Your task to perform on an android device: Clear the shopping cart on target. Image 0: 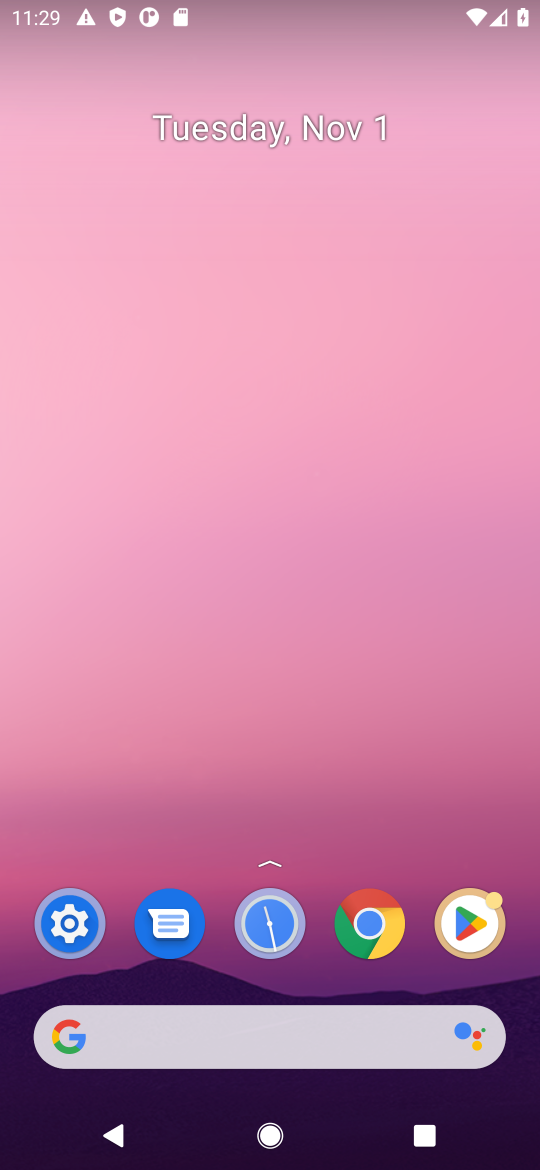
Step 0: click (366, 928)
Your task to perform on an android device: Clear the shopping cart on target. Image 1: 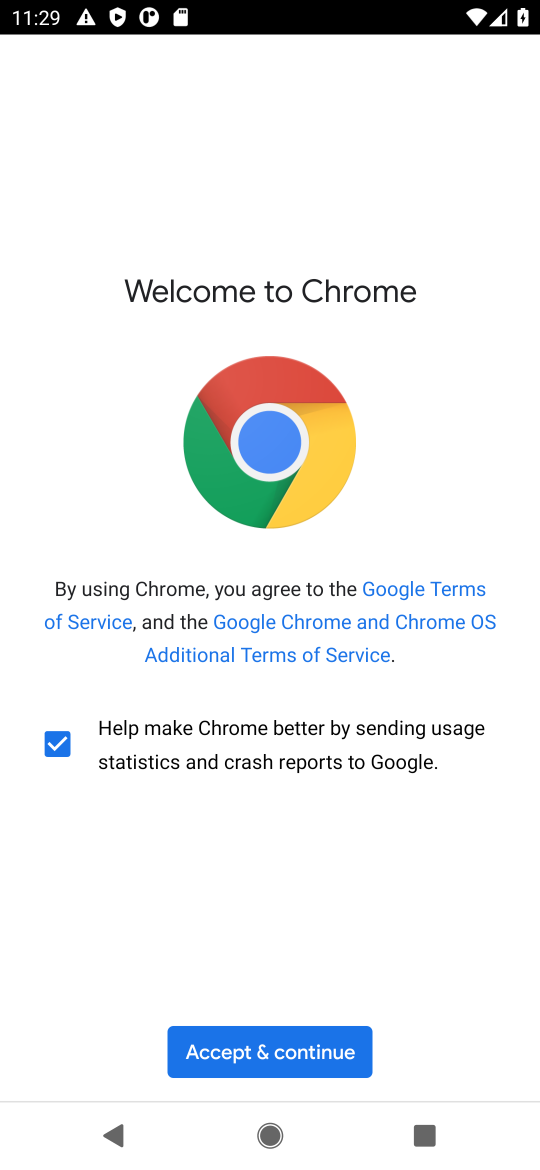
Step 1: click (317, 1065)
Your task to perform on an android device: Clear the shopping cart on target. Image 2: 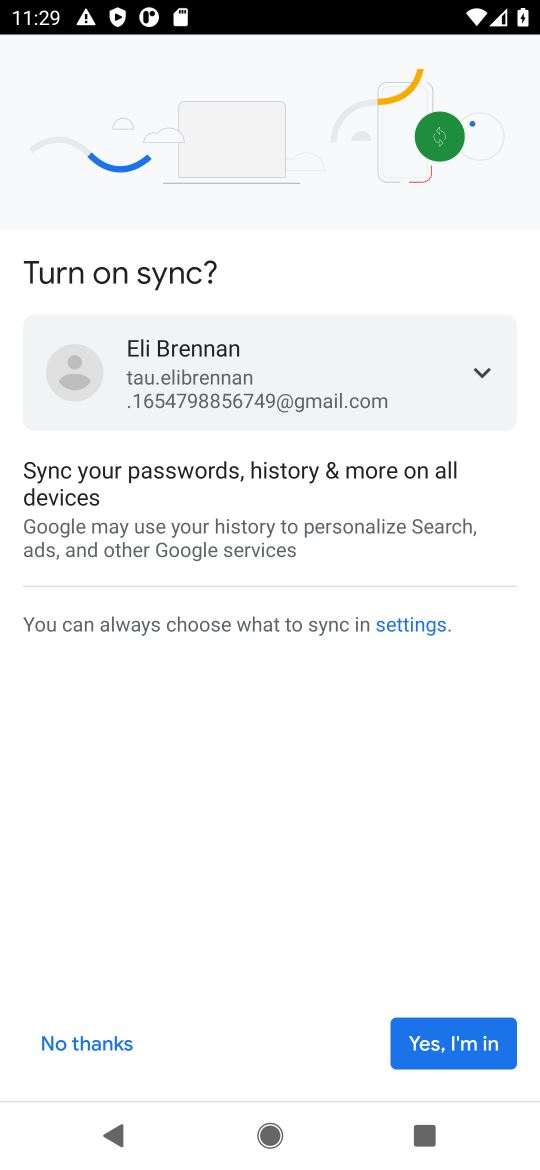
Step 2: click (468, 1043)
Your task to perform on an android device: Clear the shopping cart on target. Image 3: 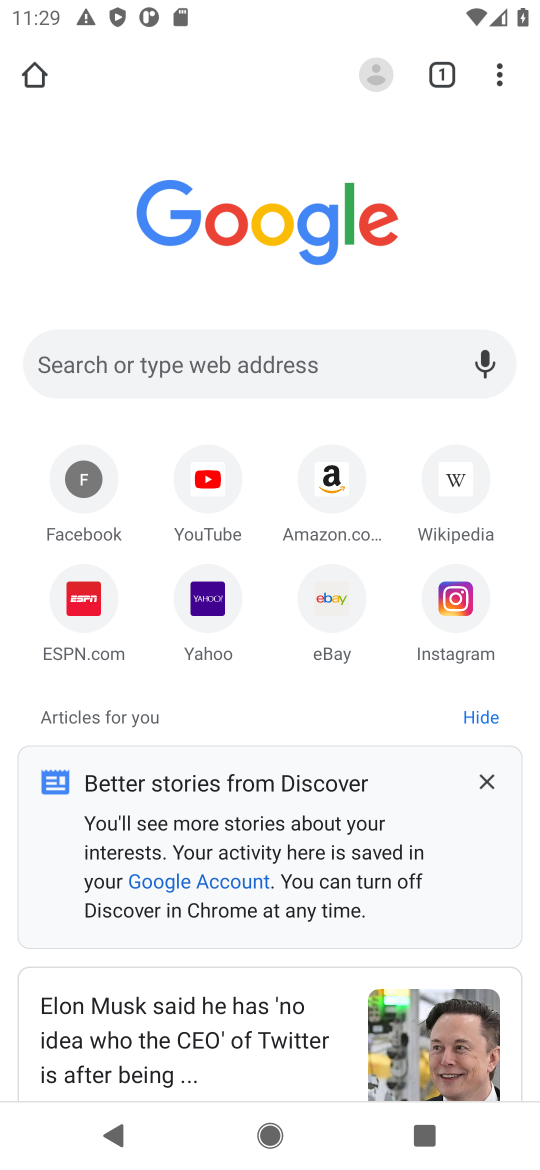
Step 3: click (179, 375)
Your task to perform on an android device: Clear the shopping cart on target. Image 4: 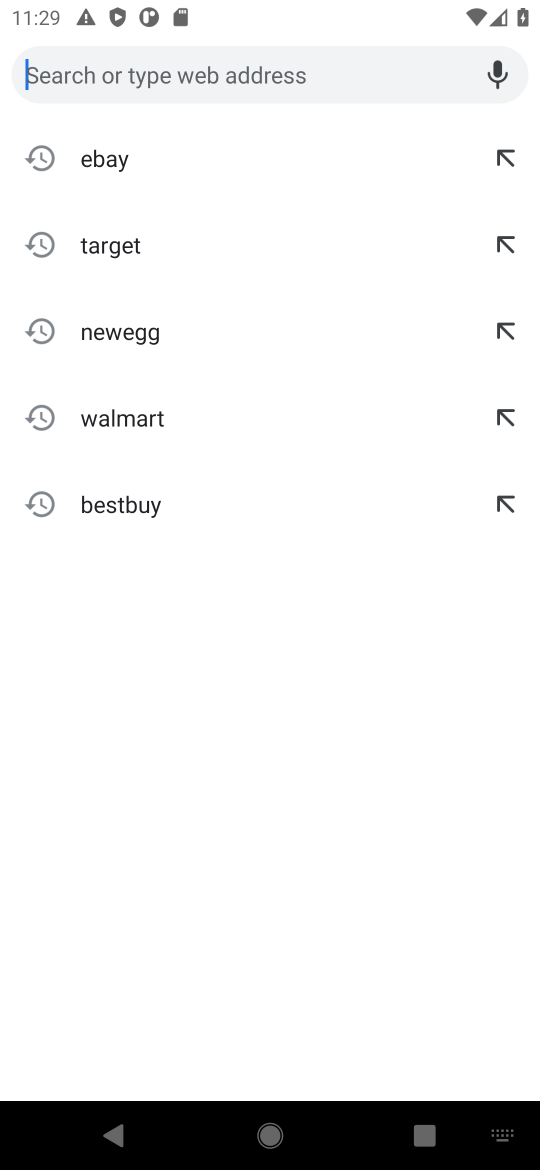
Step 4: type "target"
Your task to perform on an android device: Clear the shopping cart on target. Image 5: 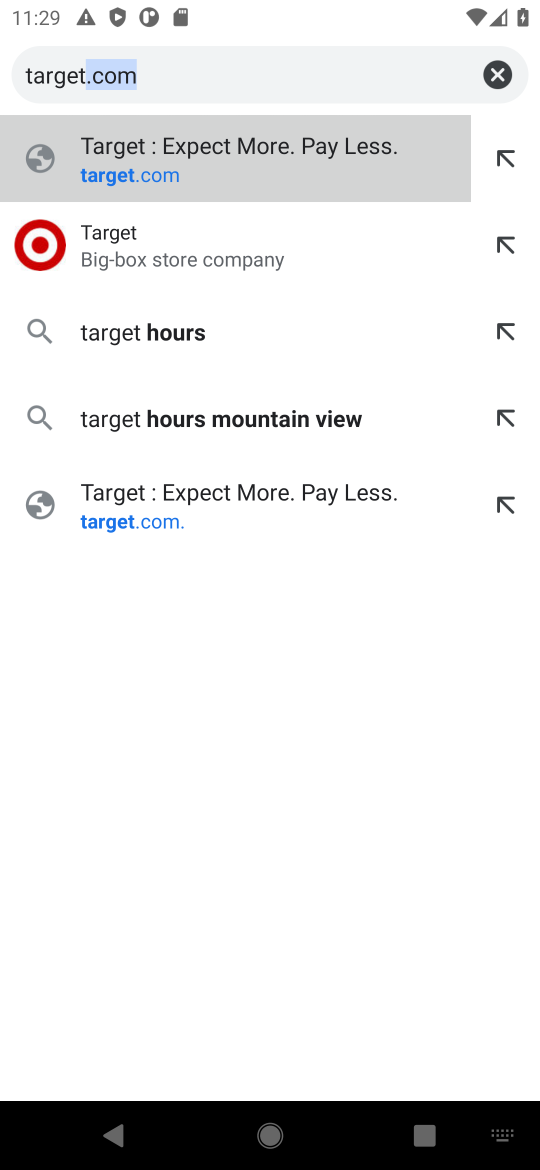
Step 5: type ""
Your task to perform on an android device: Clear the shopping cart on target. Image 6: 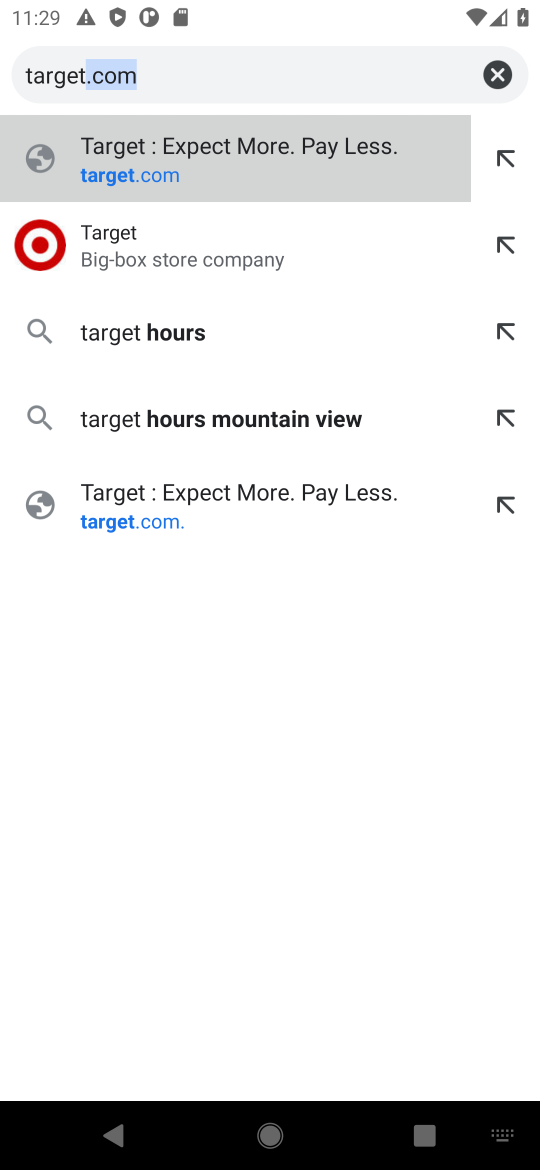
Step 6: click (350, 168)
Your task to perform on an android device: Clear the shopping cart on target. Image 7: 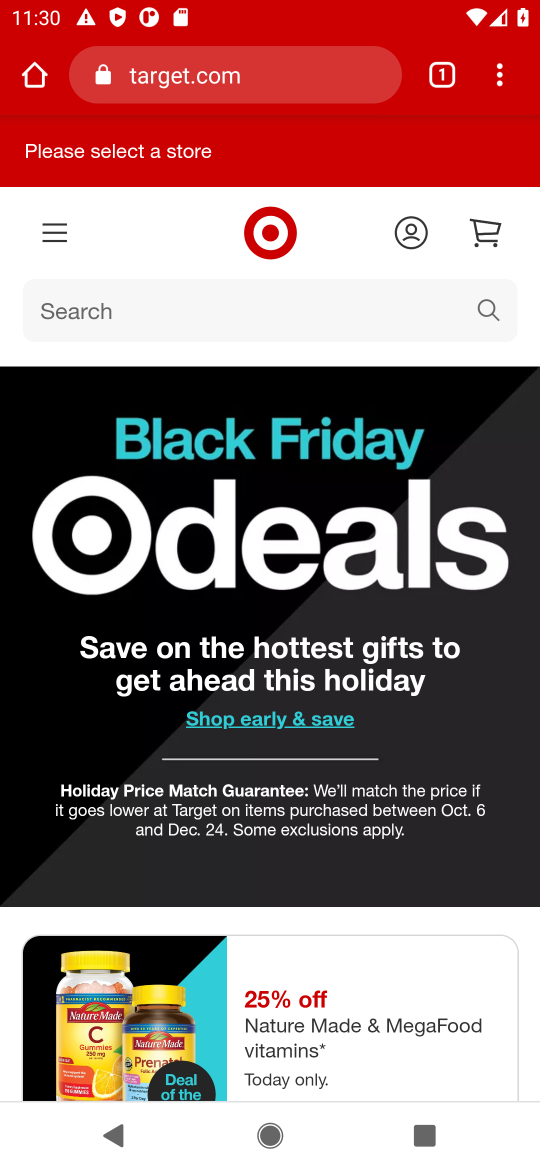
Step 7: click (506, 231)
Your task to perform on an android device: Clear the shopping cart on target. Image 8: 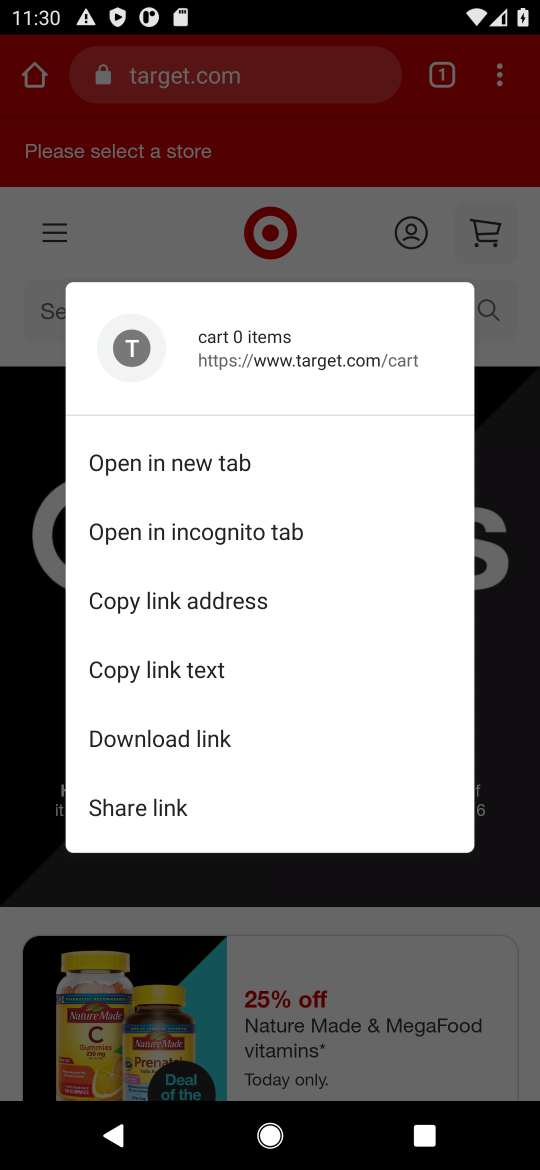
Step 8: click (487, 316)
Your task to perform on an android device: Clear the shopping cart on target. Image 9: 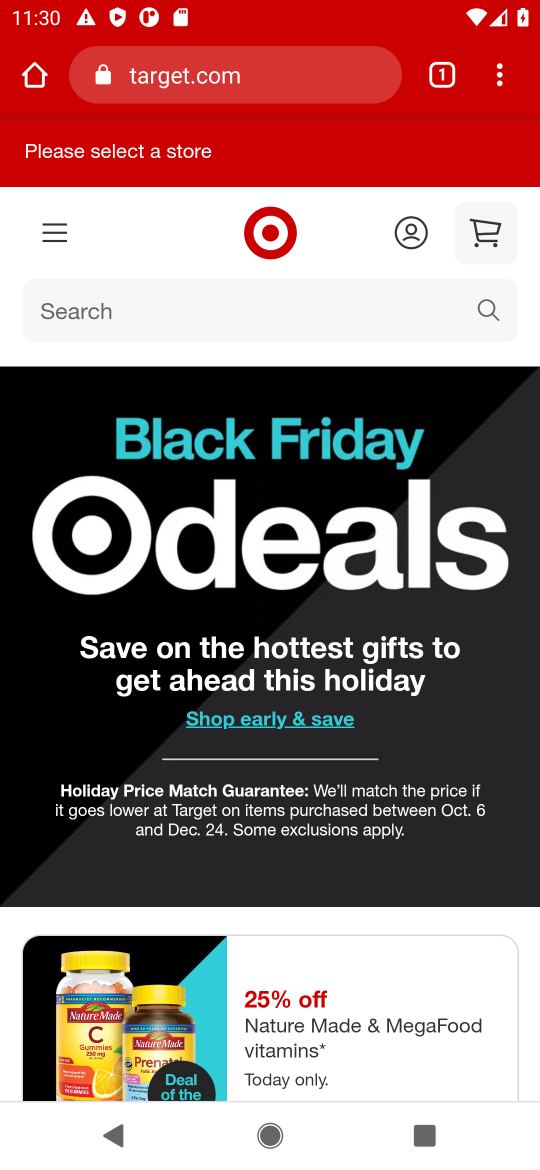
Step 9: click (477, 245)
Your task to perform on an android device: Clear the shopping cart on target. Image 10: 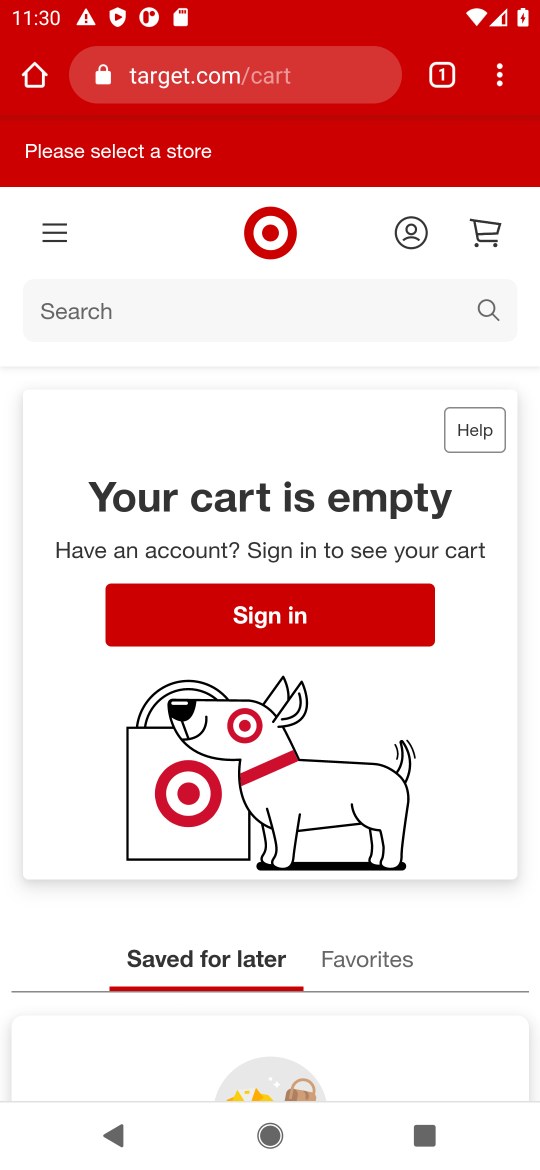
Step 10: press back button
Your task to perform on an android device: Clear the shopping cart on target. Image 11: 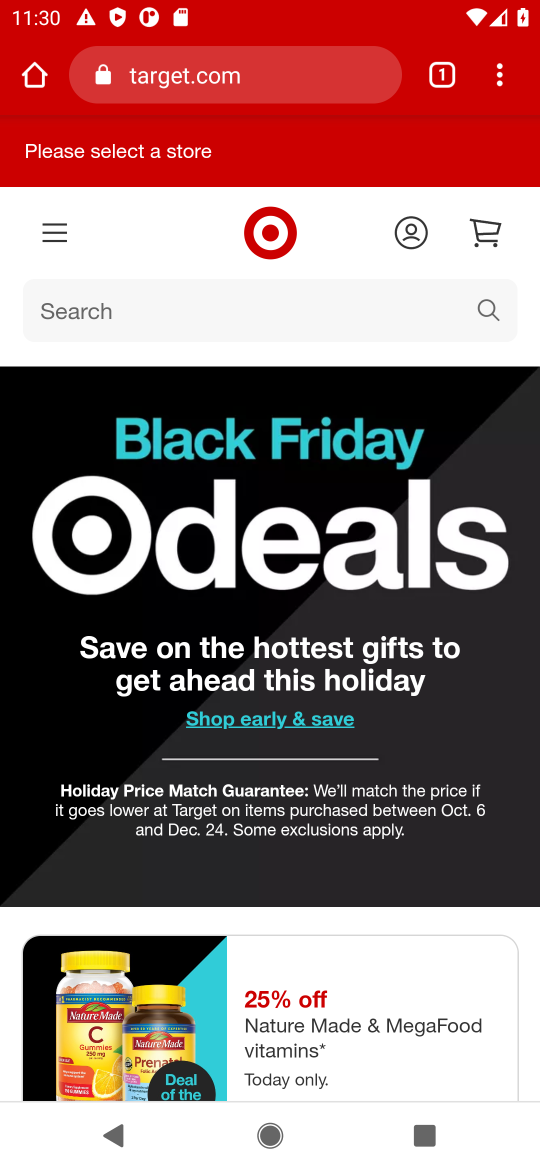
Step 11: drag from (299, 625) to (309, 332)
Your task to perform on an android device: Clear the shopping cart on target. Image 12: 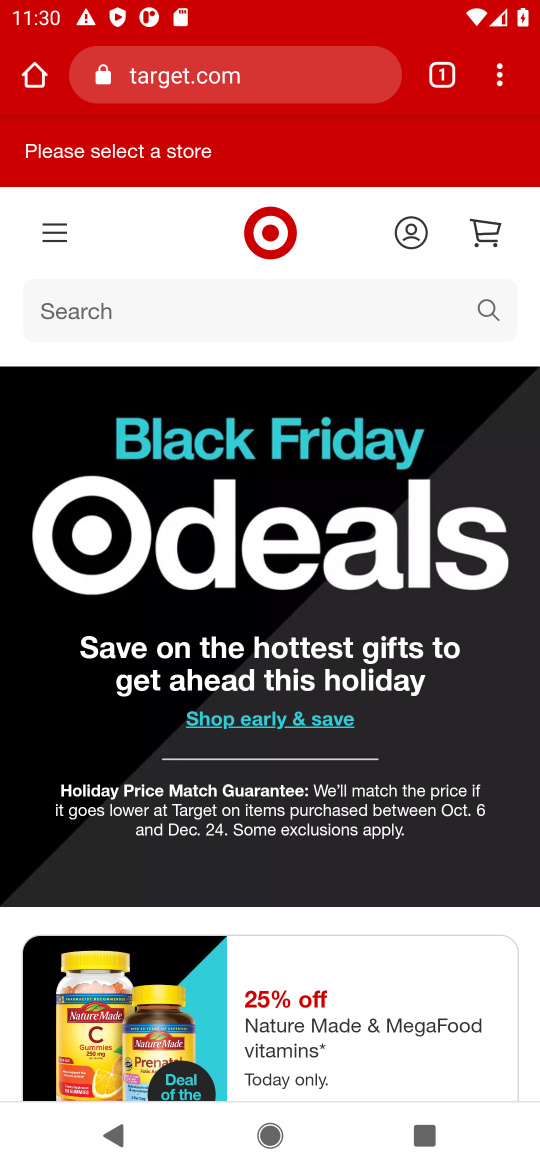
Step 12: drag from (256, 705) to (304, 468)
Your task to perform on an android device: Clear the shopping cart on target. Image 13: 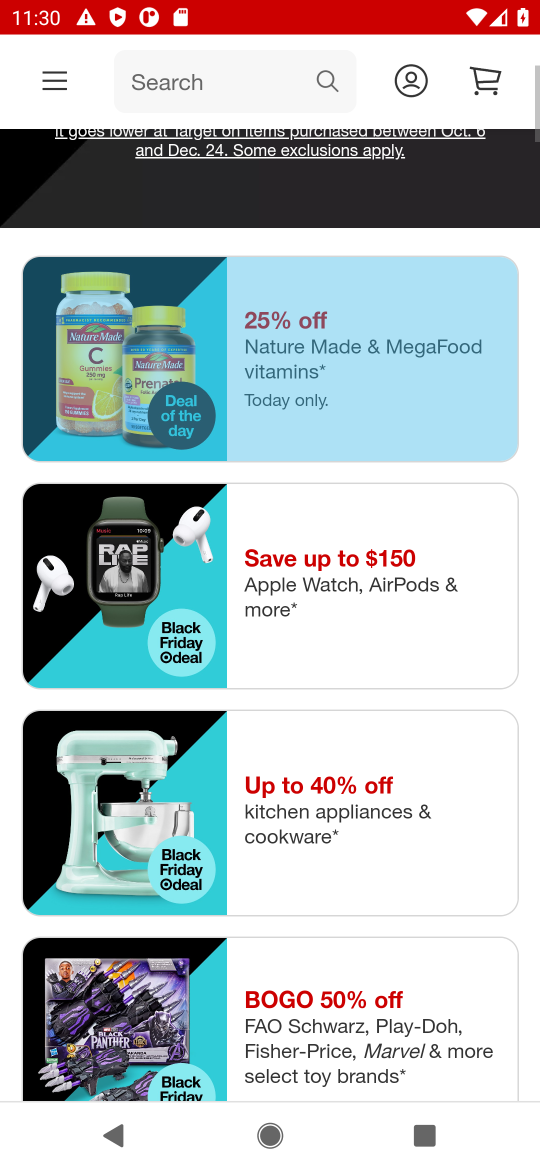
Step 13: drag from (303, 462) to (372, 363)
Your task to perform on an android device: Clear the shopping cart on target. Image 14: 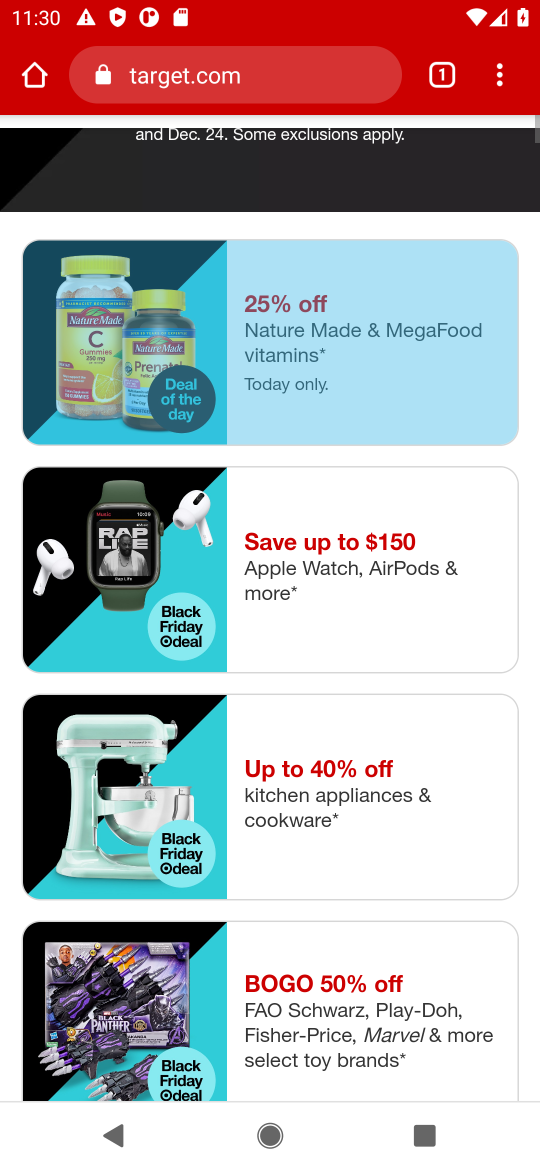
Step 14: drag from (364, 469) to (455, 322)
Your task to perform on an android device: Clear the shopping cart on target. Image 15: 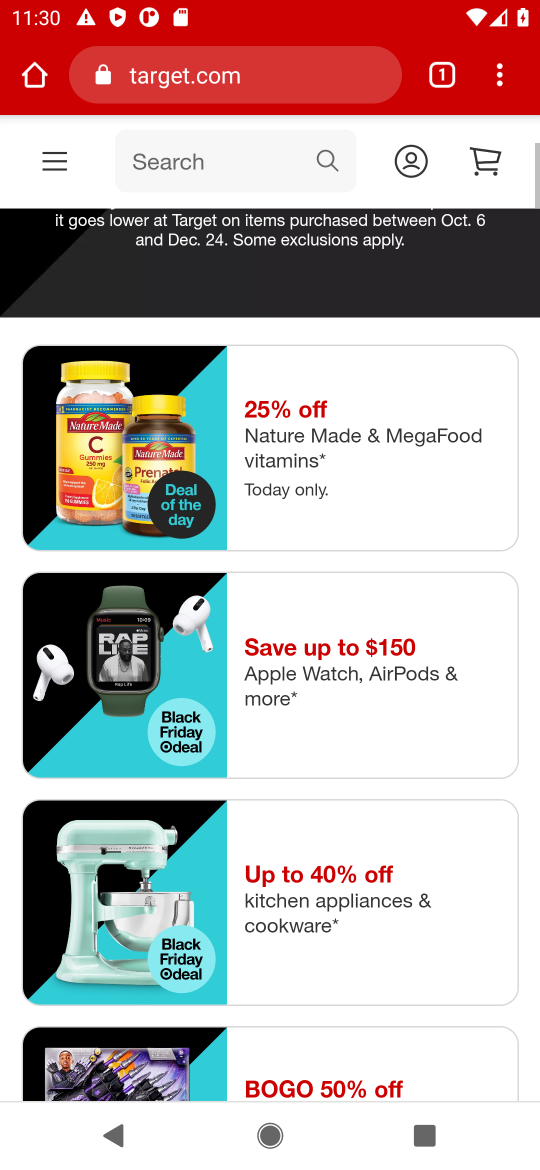
Step 15: drag from (482, 350) to (493, 294)
Your task to perform on an android device: Clear the shopping cart on target. Image 16: 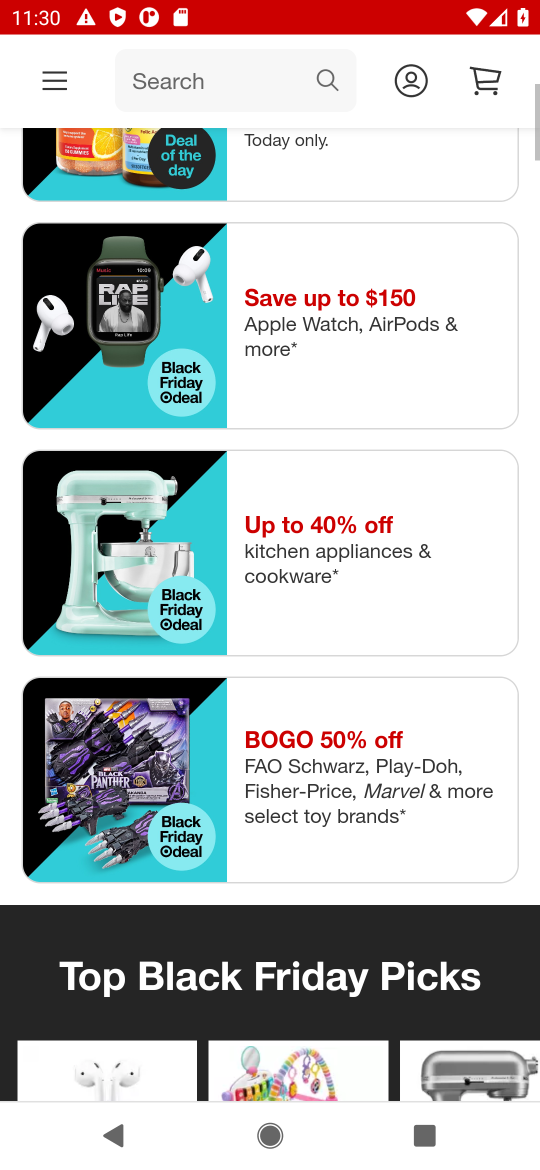
Step 16: click (511, 308)
Your task to perform on an android device: Clear the shopping cart on target. Image 17: 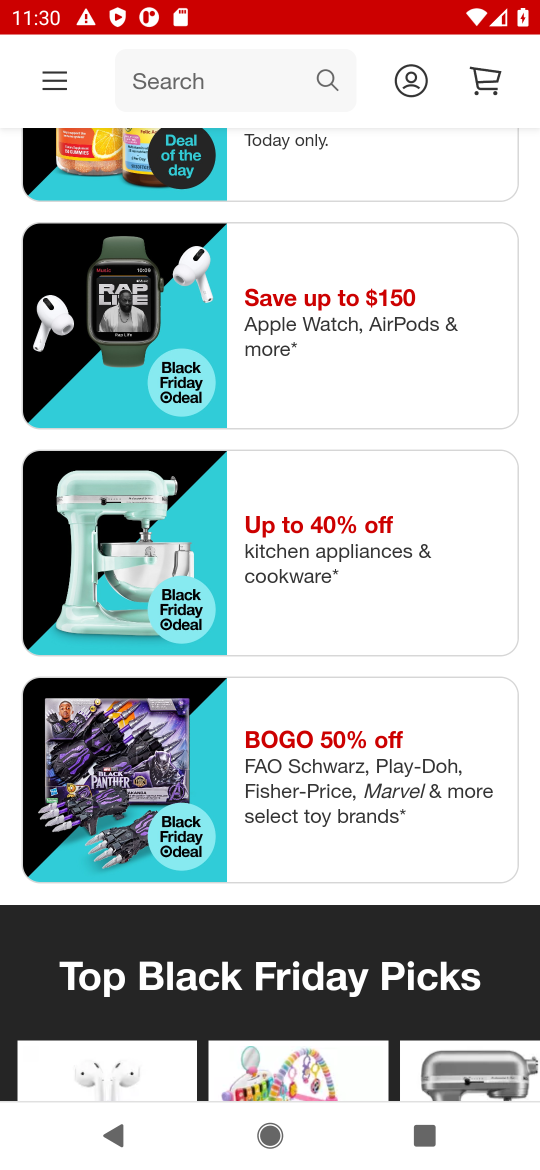
Step 17: drag from (539, 316) to (472, 344)
Your task to perform on an android device: Clear the shopping cart on target. Image 18: 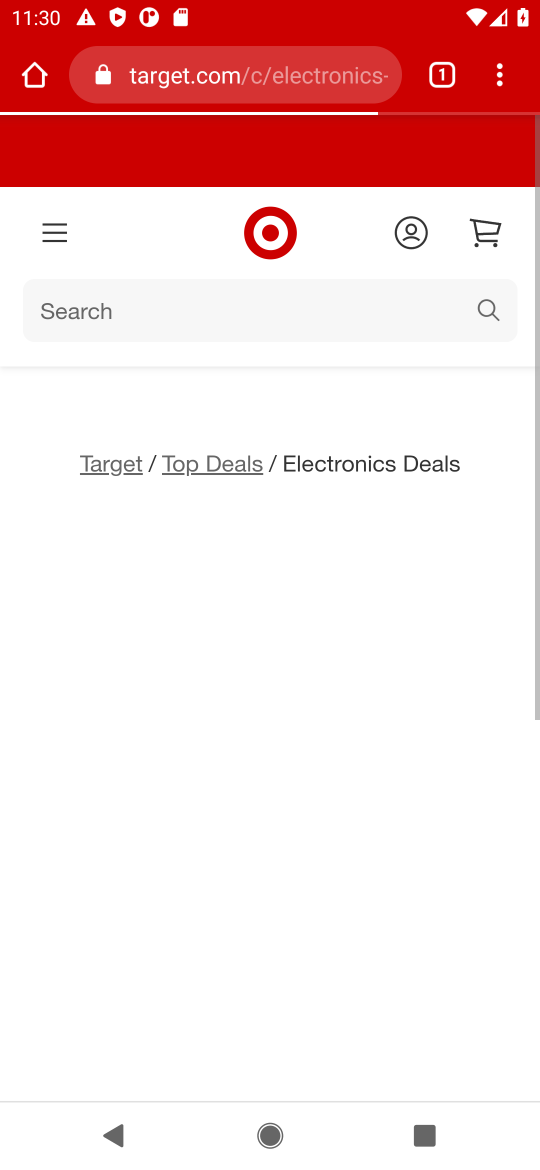
Step 18: click (471, 323)
Your task to perform on an android device: Clear the shopping cart on target. Image 19: 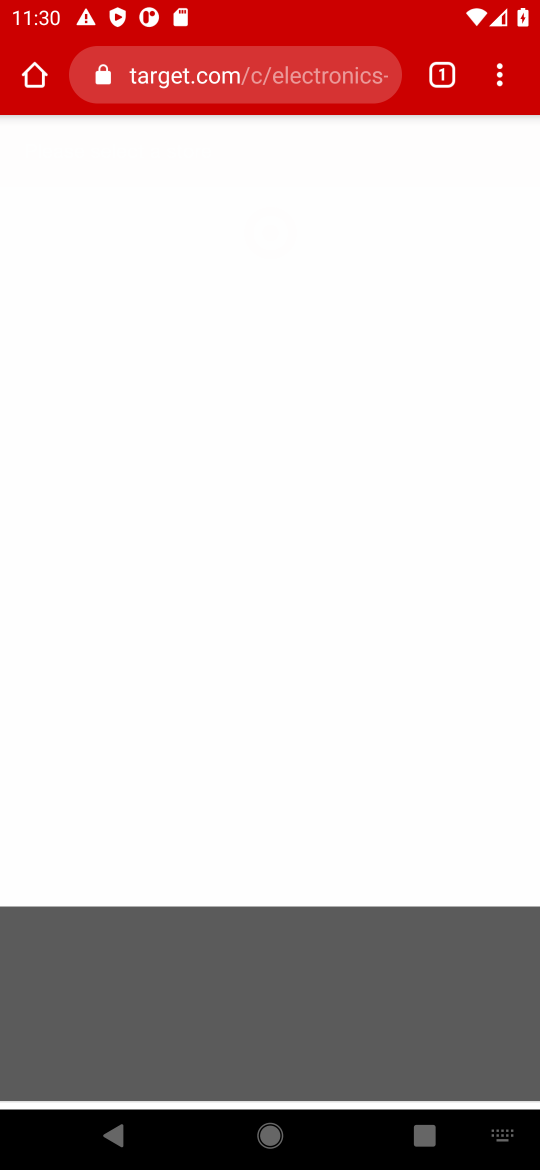
Step 19: press back button
Your task to perform on an android device: Clear the shopping cart on target. Image 20: 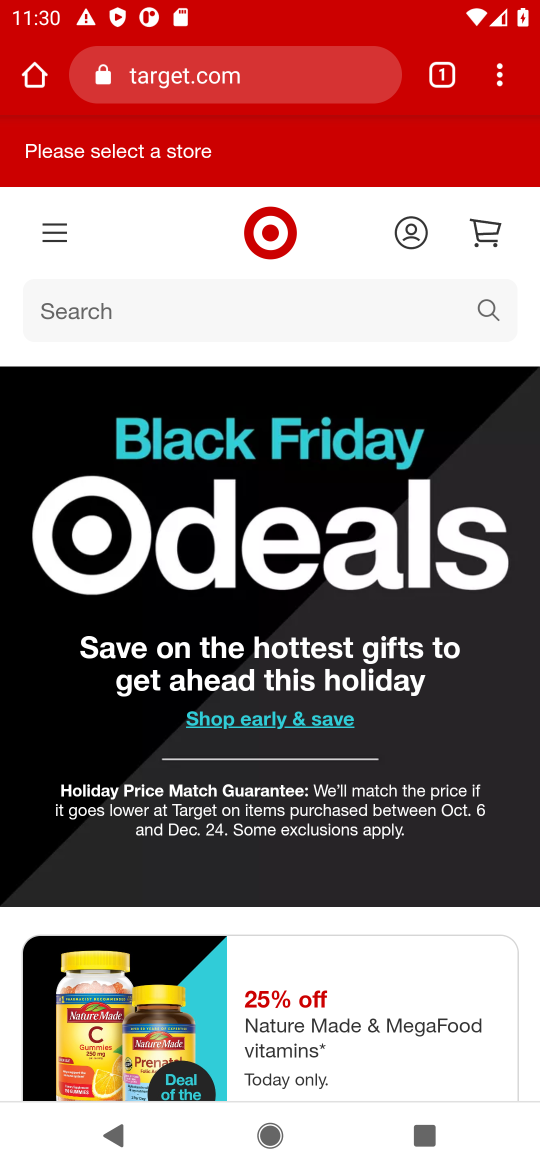
Step 20: click (287, 561)
Your task to perform on an android device: Clear the shopping cart on target. Image 21: 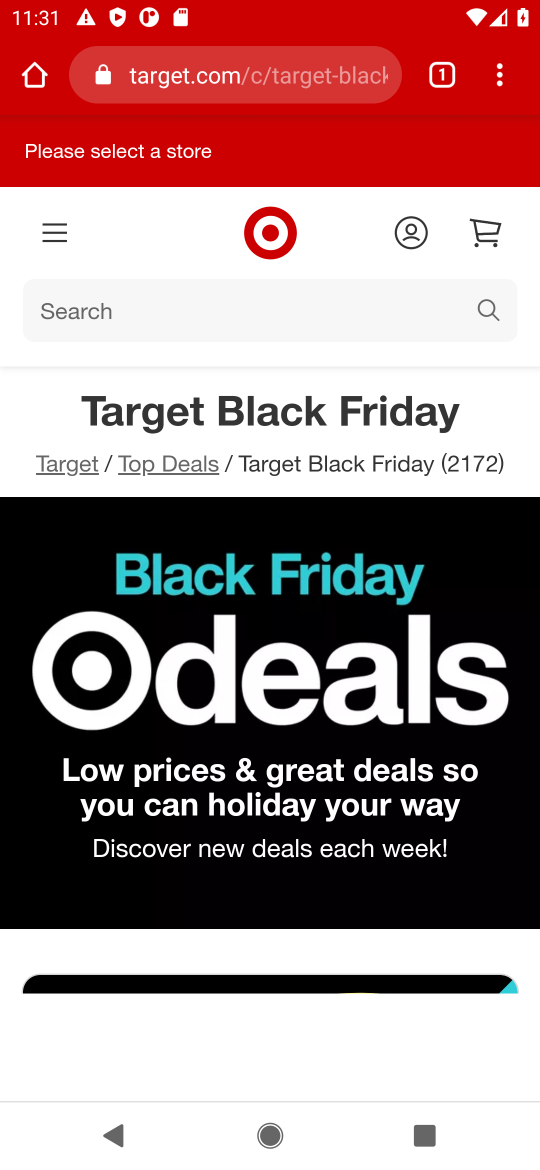
Step 21: drag from (228, 925) to (343, 357)
Your task to perform on an android device: Clear the shopping cart on target. Image 22: 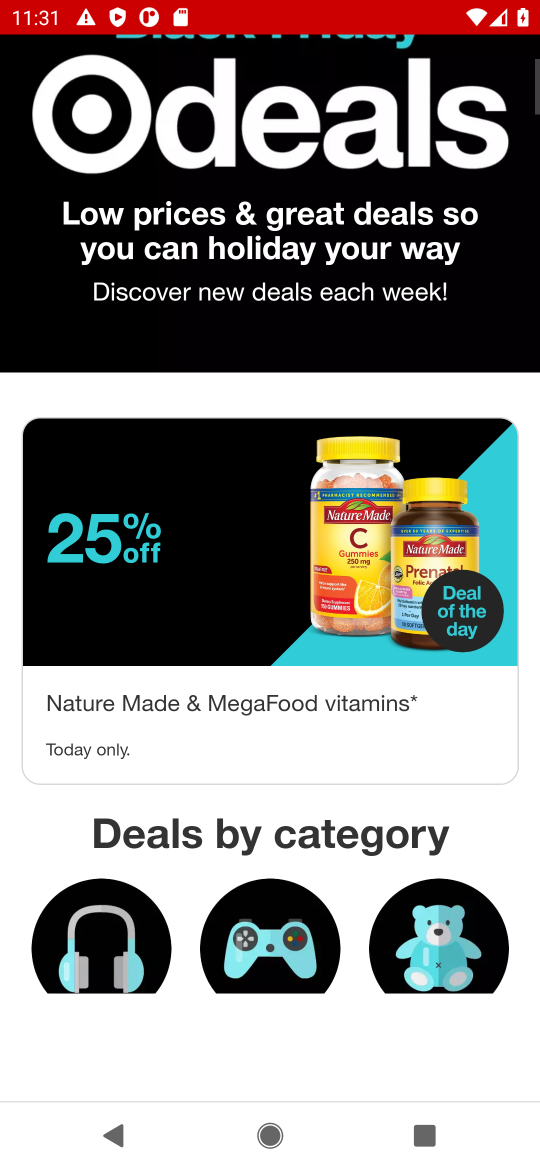
Step 22: drag from (327, 452) to (339, 521)
Your task to perform on an android device: Clear the shopping cart on target. Image 23: 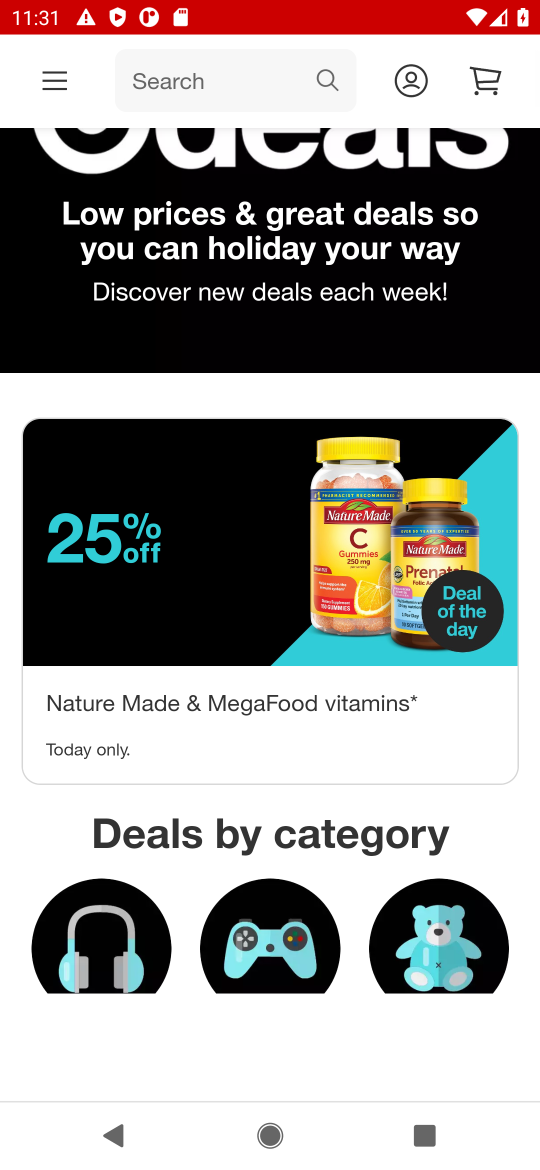
Step 23: drag from (280, 776) to (312, 401)
Your task to perform on an android device: Clear the shopping cart on target. Image 24: 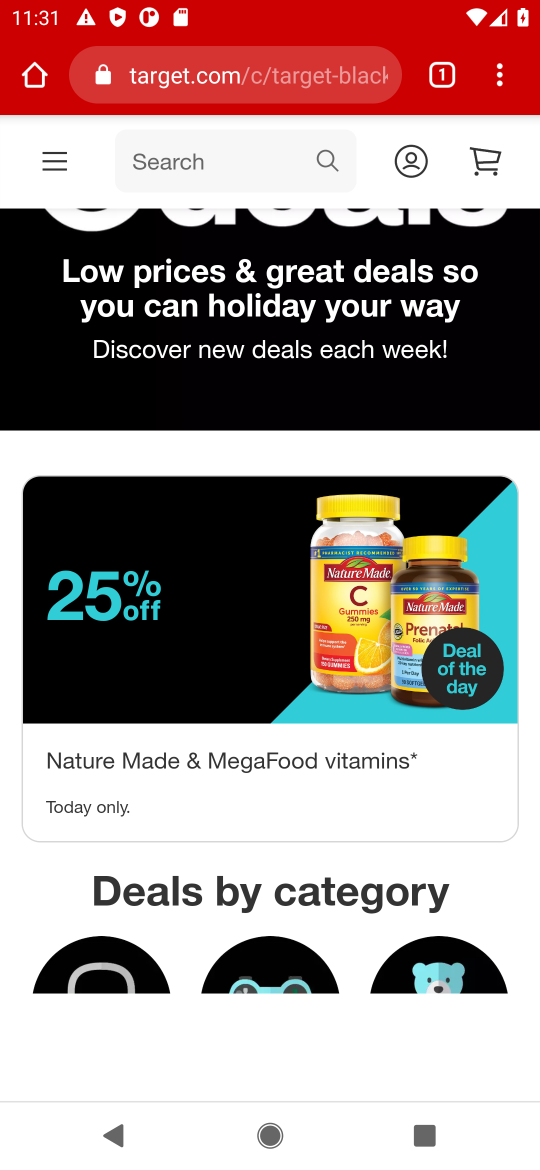
Step 24: drag from (382, 391) to (413, 339)
Your task to perform on an android device: Clear the shopping cart on target. Image 25: 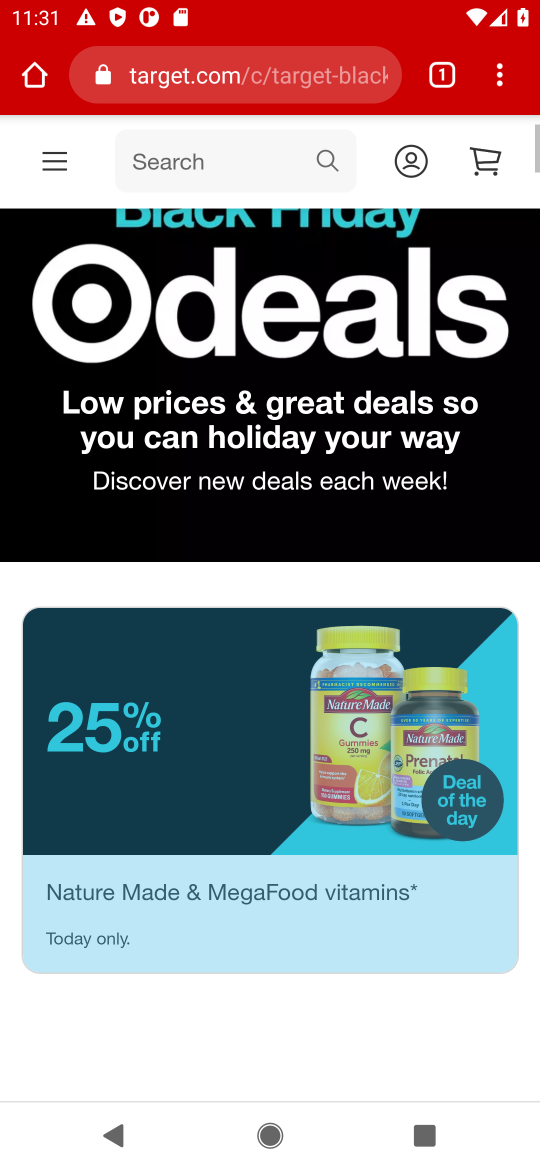
Step 25: drag from (351, 785) to (400, 317)
Your task to perform on an android device: Clear the shopping cart on target. Image 26: 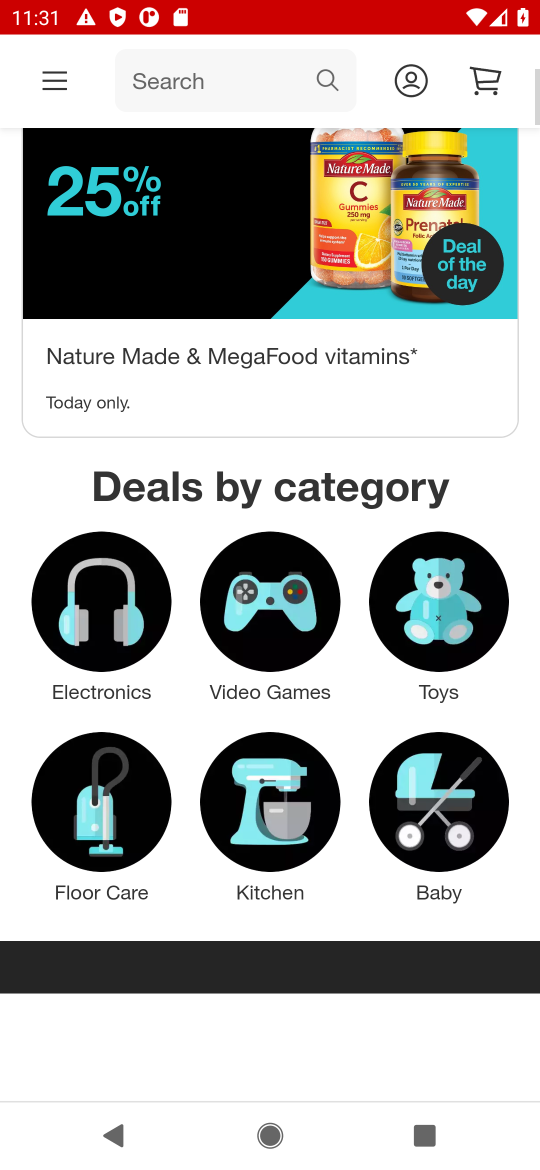
Step 26: drag from (379, 304) to (400, 248)
Your task to perform on an android device: Clear the shopping cart on target. Image 27: 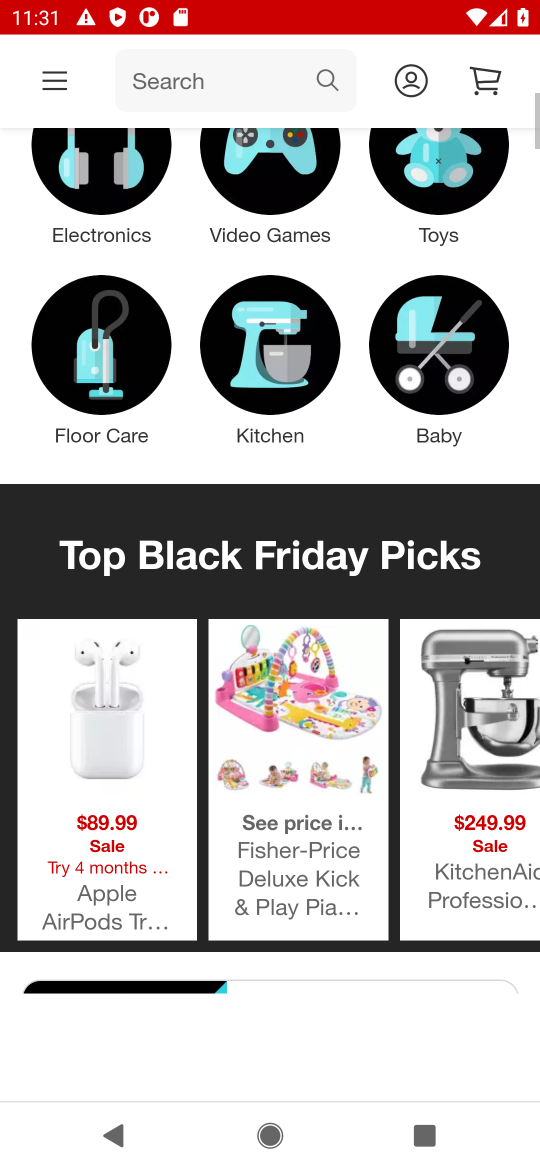
Step 27: click (432, 217)
Your task to perform on an android device: Clear the shopping cart on target. Image 28: 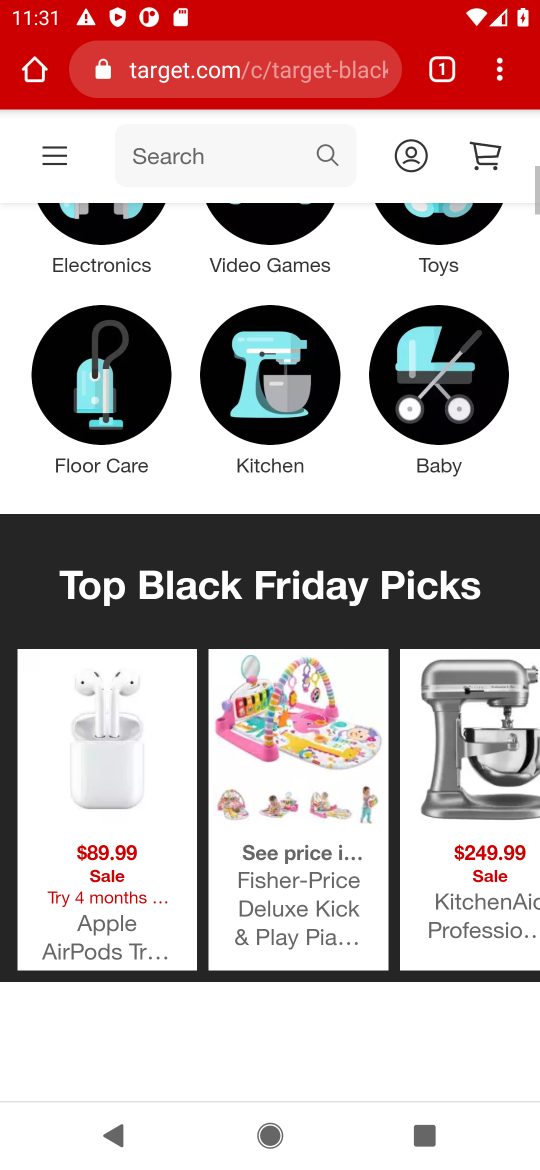
Step 28: click (488, 143)
Your task to perform on an android device: Clear the shopping cart on target. Image 29: 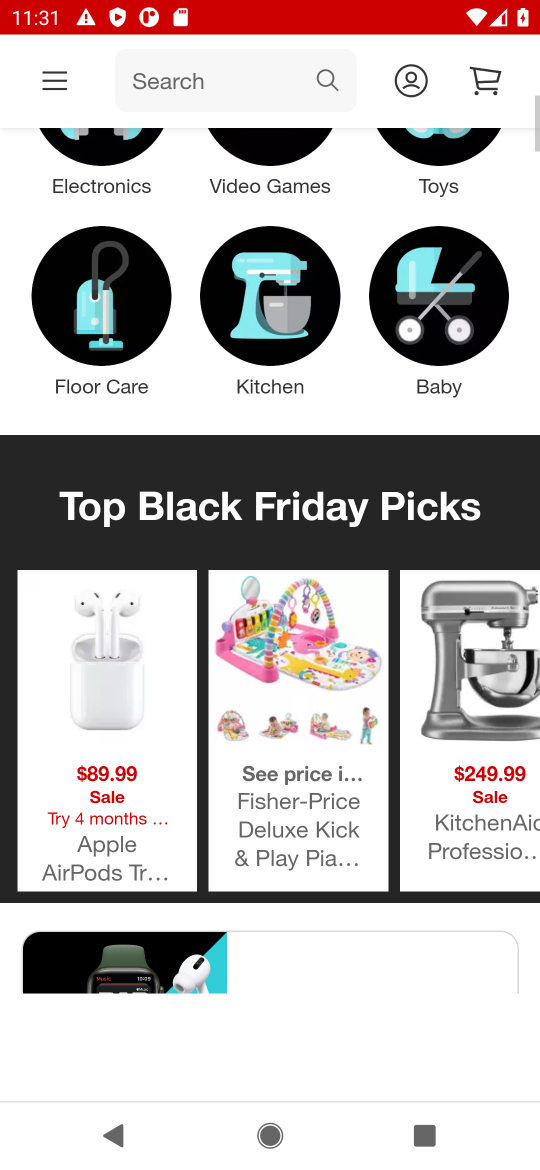
Step 29: click (407, 189)
Your task to perform on an android device: Clear the shopping cart on target. Image 30: 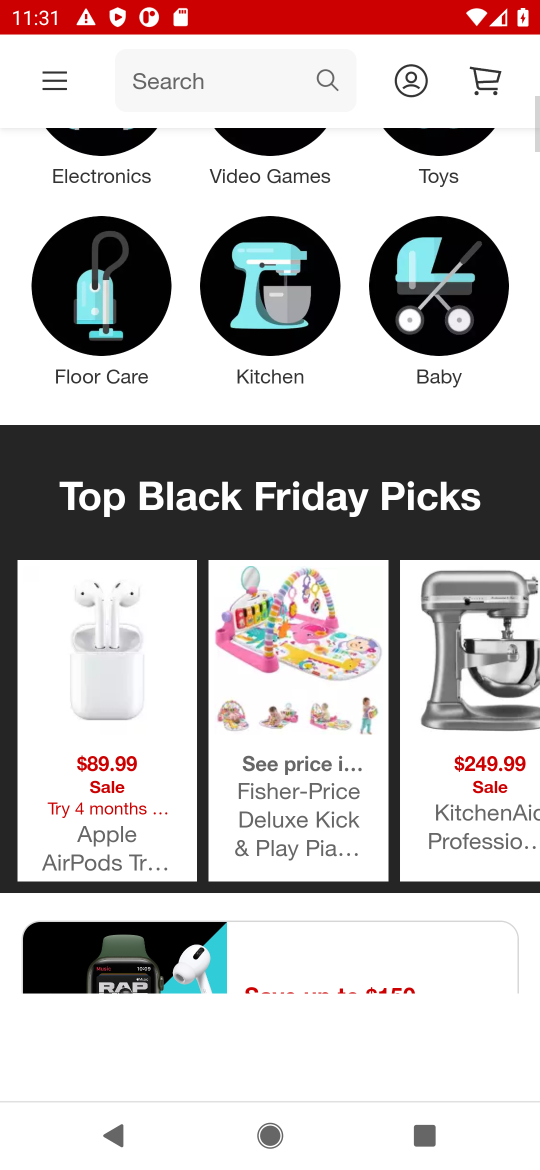
Step 30: click (398, 272)
Your task to perform on an android device: Clear the shopping cart on target. Image 31: 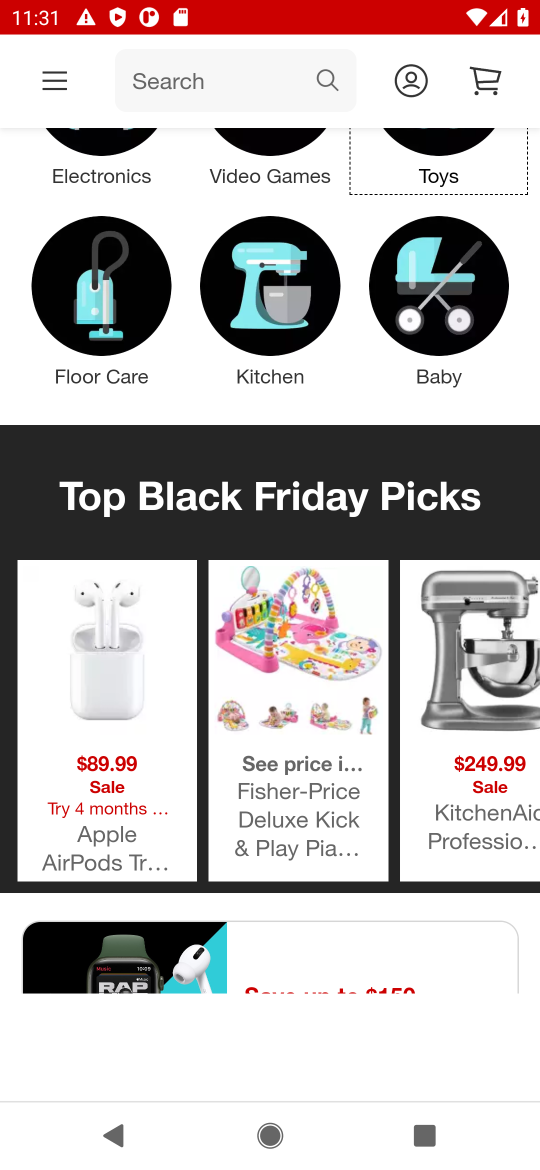
Step 31: drag from (350, 326) to (390, 172)
Your task to perform on an android device: Clear the shopping cart on target. Image 32: 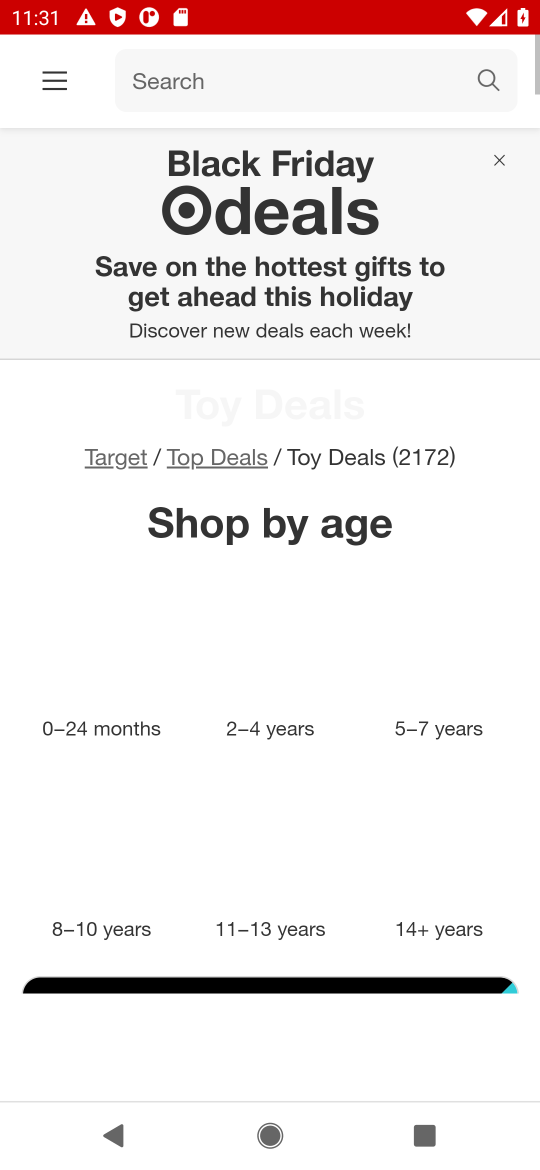
Step 32: drag from (287, 657) to (360, 174)
Your task to perform on an android device: Clear the shopping cart on target. Image 33: 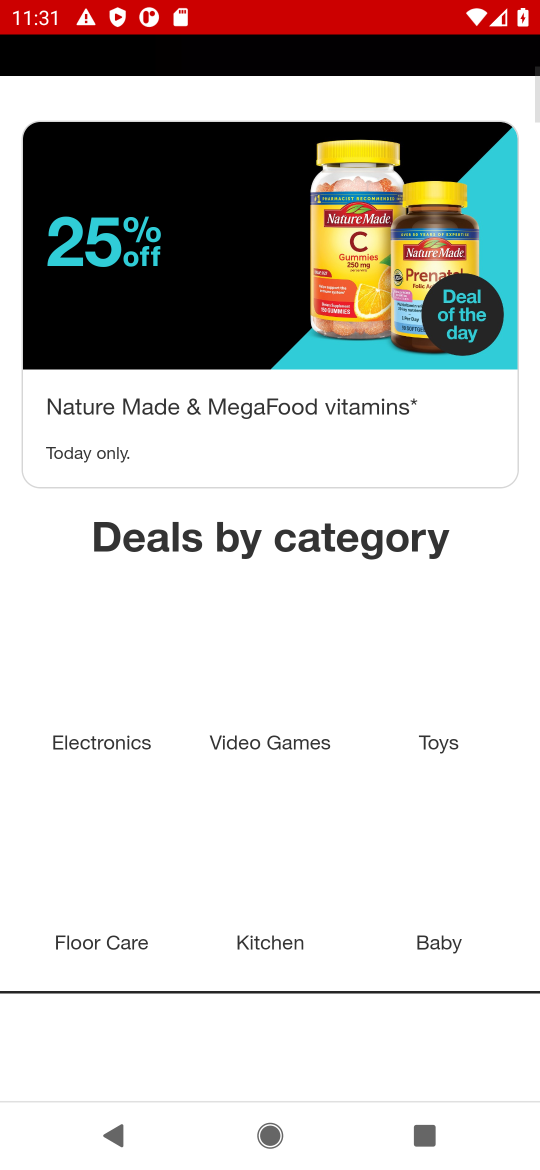
Step 33: click (293, 267)
Your task to perform on an android device: Clear the shopping cart on target. Image 34: 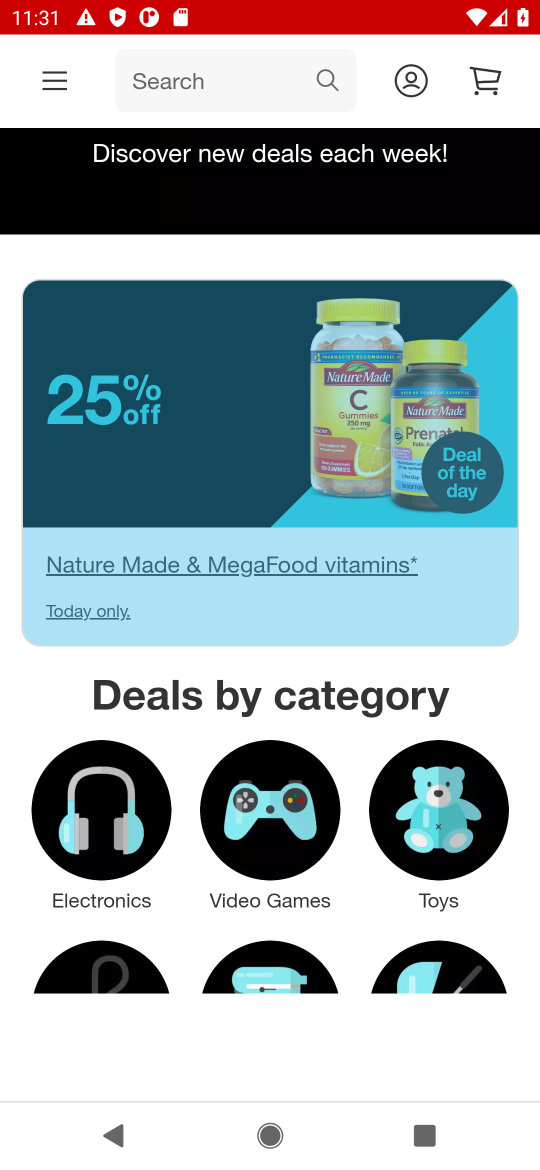
Step 34: task complete